Your task to perform on an android device: install app "WhatsApp Messenger" Image 0: 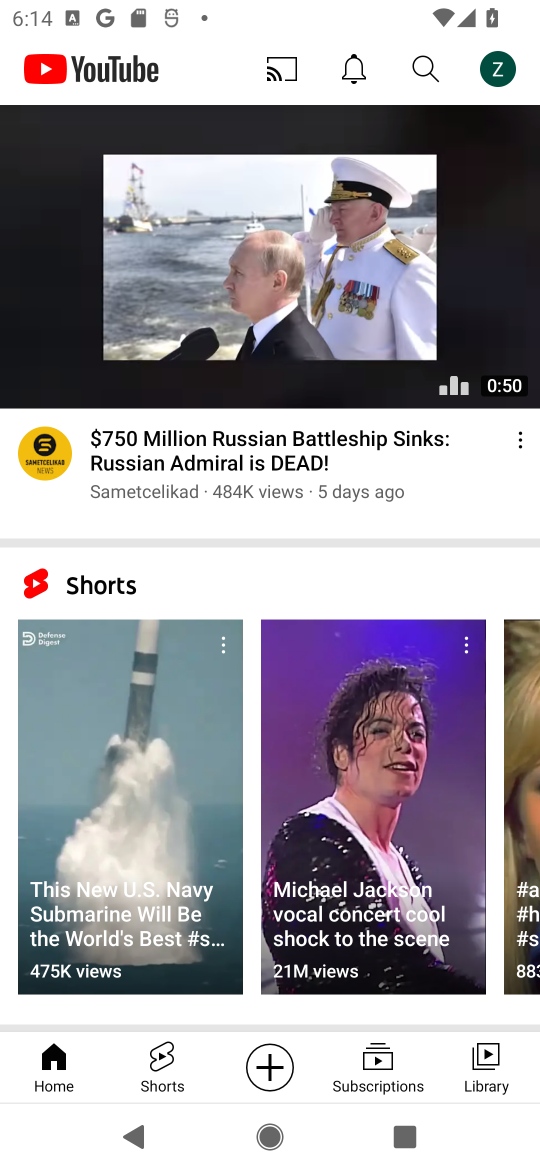
Step 0: press home button
Your task to perform on an android device: install app "WhatsApp Messenger" Image 1: 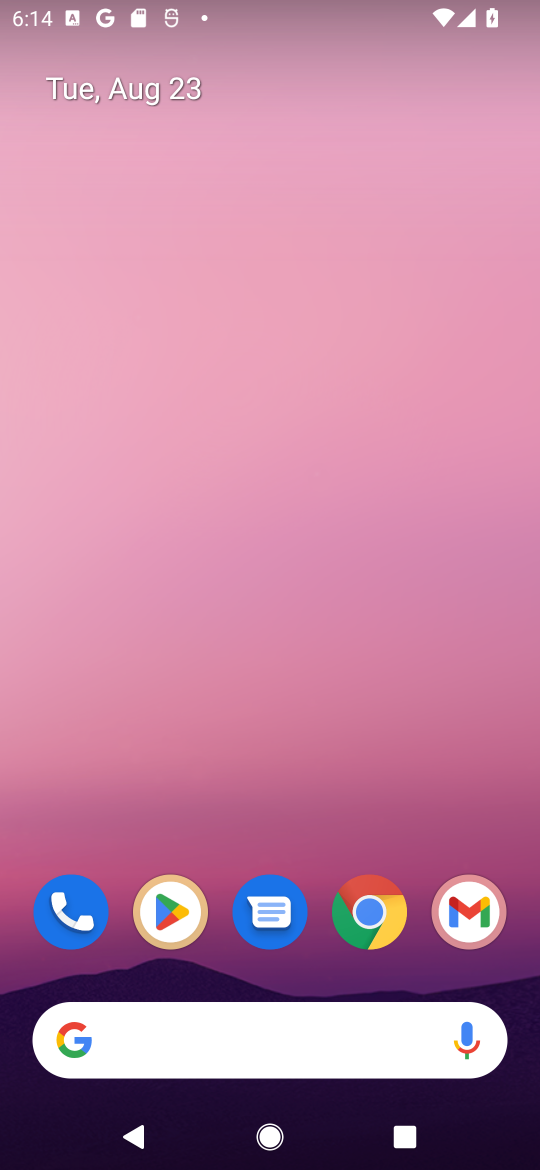
Step 1: drag from (300, 900) to (410, 322)
Your task to perform on an android device: install app "WhatsApp Messenger" Image 2: 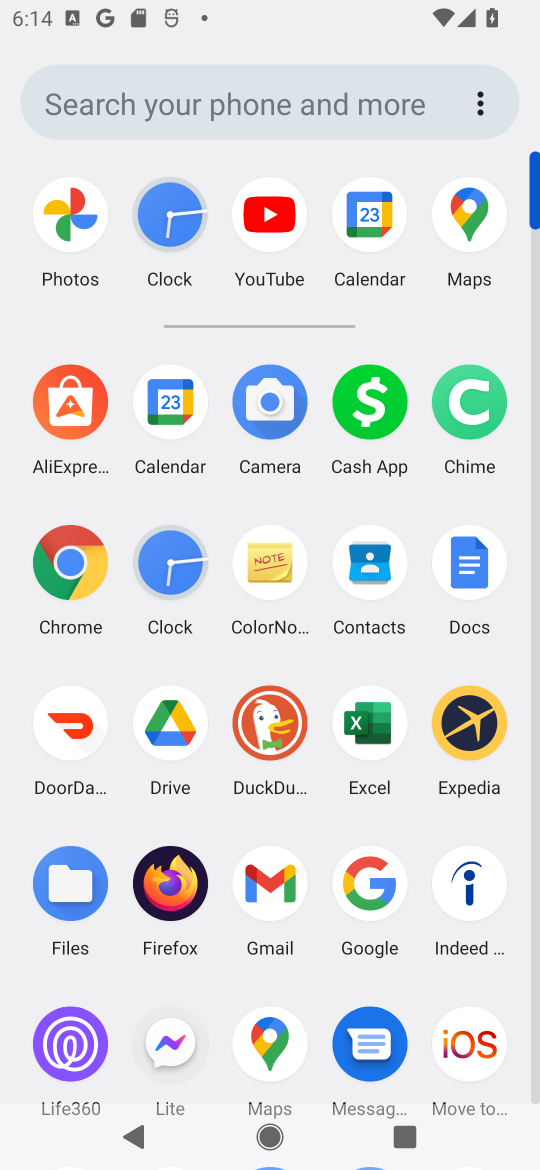
Step 2: drag from (222, 932) to (343, 72)
Your task to perform on an android device: install app "WhatsApp Messenger" Image 3: 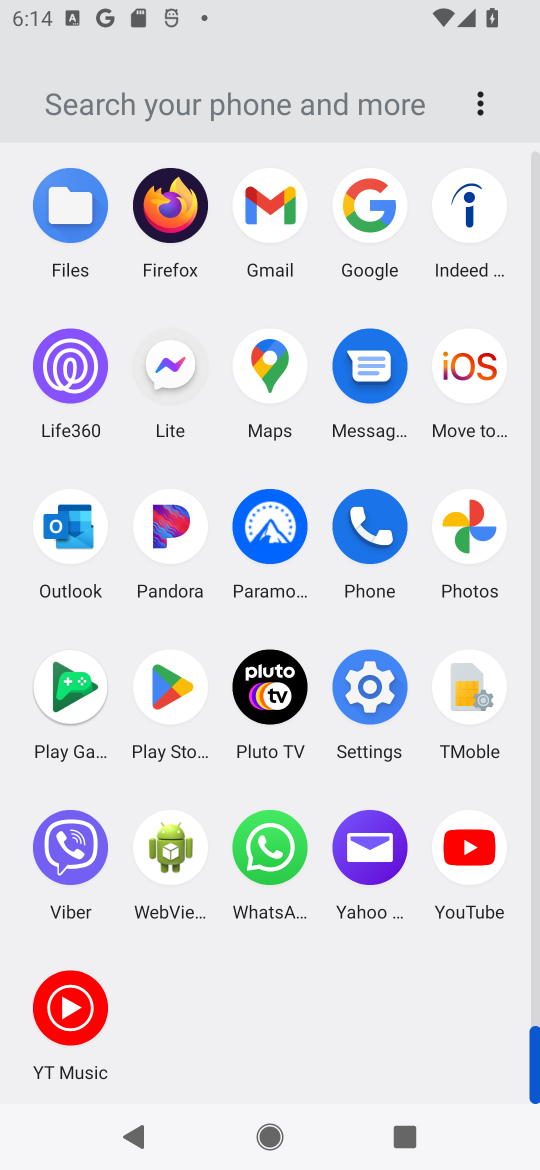
Step 3: click (151, 679)
Your task to perform on an android device: install app "WhatsApp Messenger" Image 4: 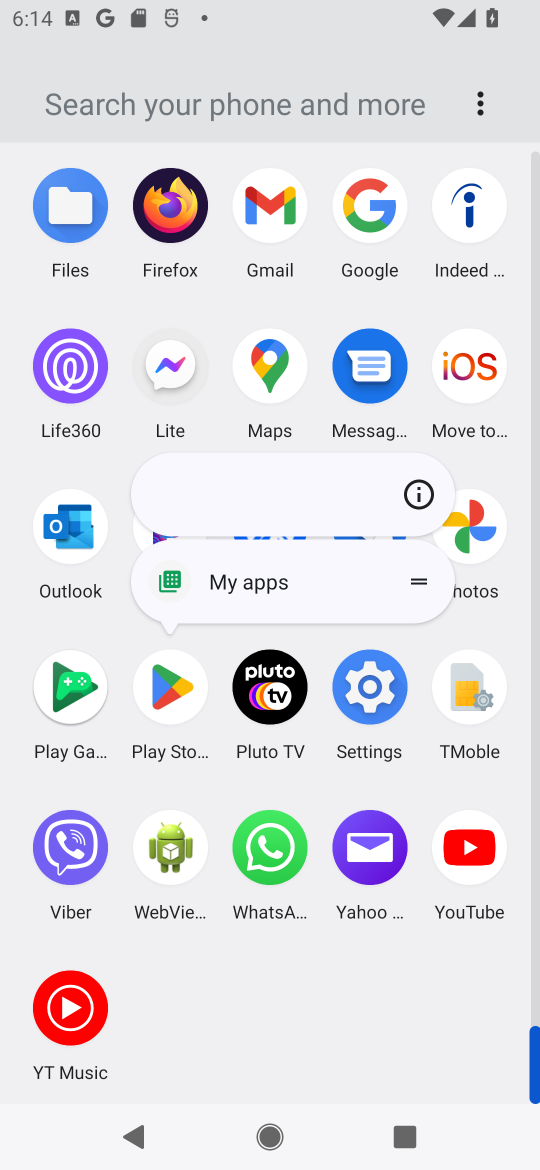
Step 4: click (172, 673)
Your task to perform on an android device: install app "WhatsApp Messenger" Image 5: 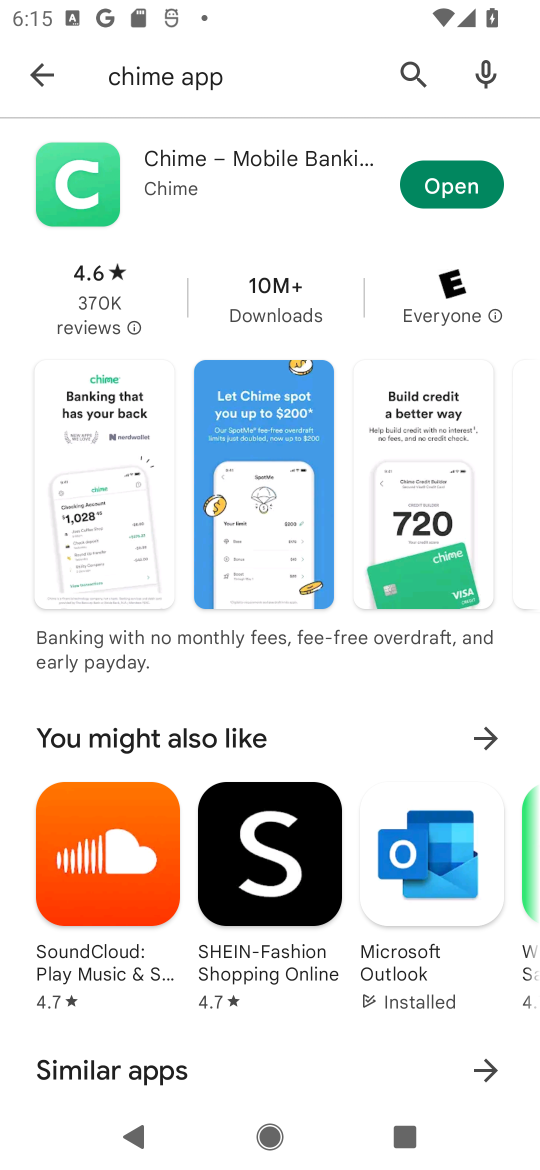
Step 5: click (24, 84)
Your task to perform on an android device: install app "WhatsApp Messenger" Image 6: 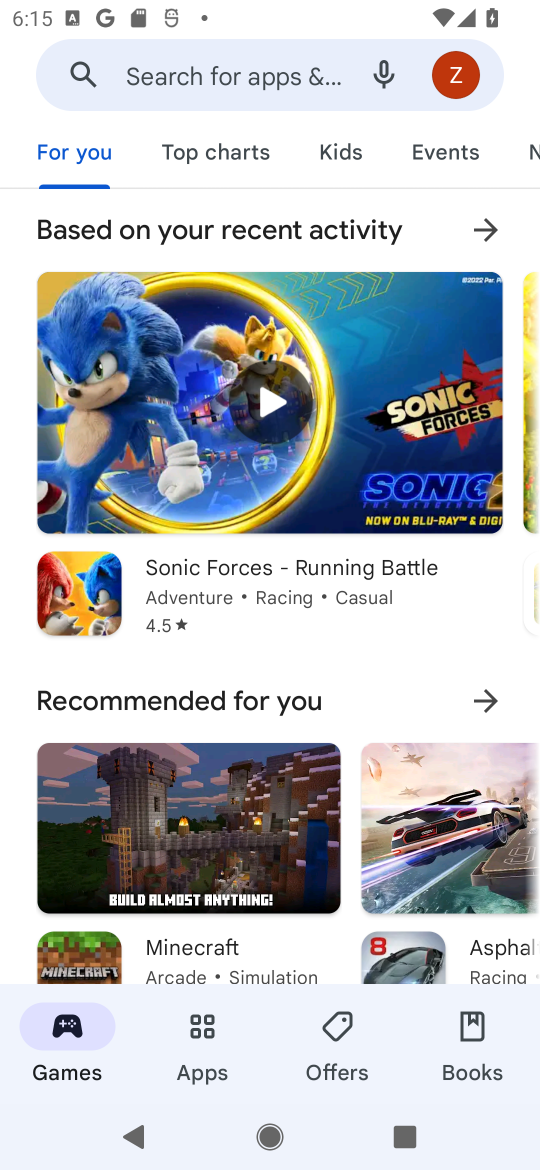
Step 6: click (181, 62)
Your task to perform on an android device: install app "WhatsApp Messenger" Image 7: 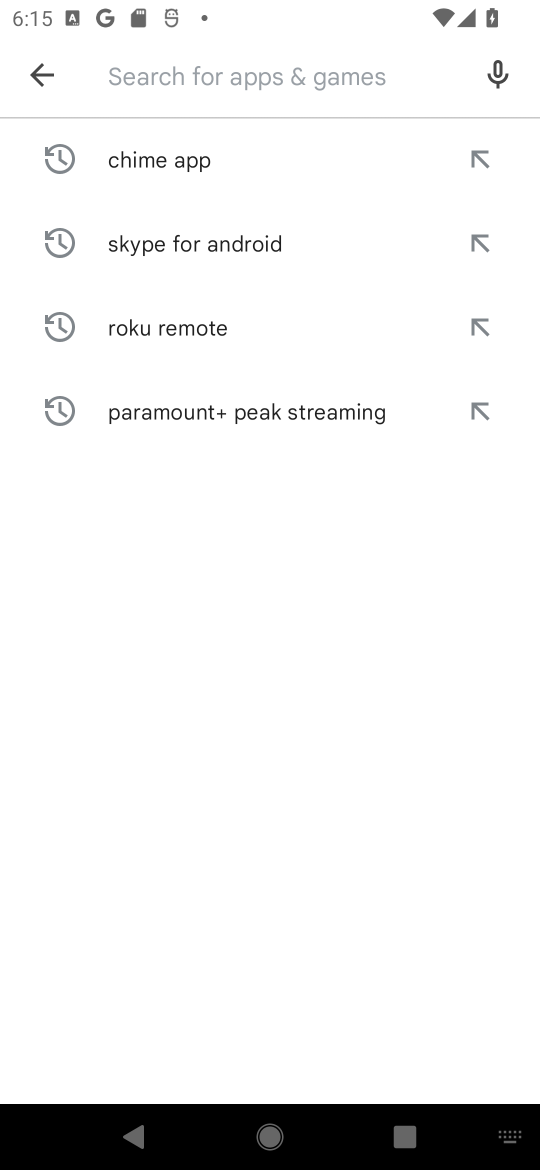
Step 7: type "WhatsApp Messenger "
Your task to perform on an android device: install app "WhatsApp Messenger" Image 8: 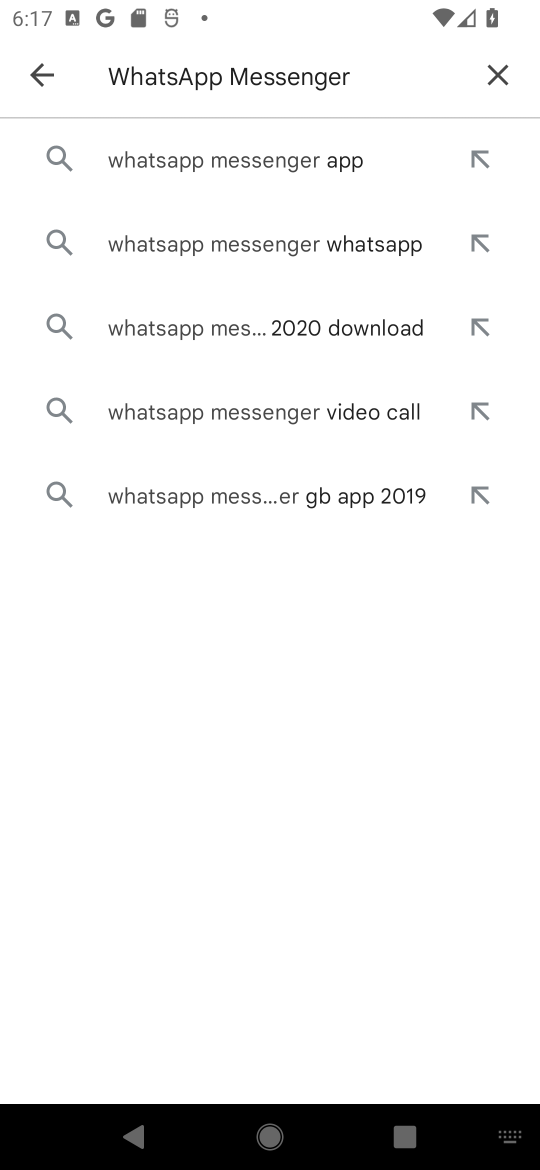
Step 8: click (253, 143)
Your task to perform on an android device: install app "WhatsApp Messenger" Image 9: 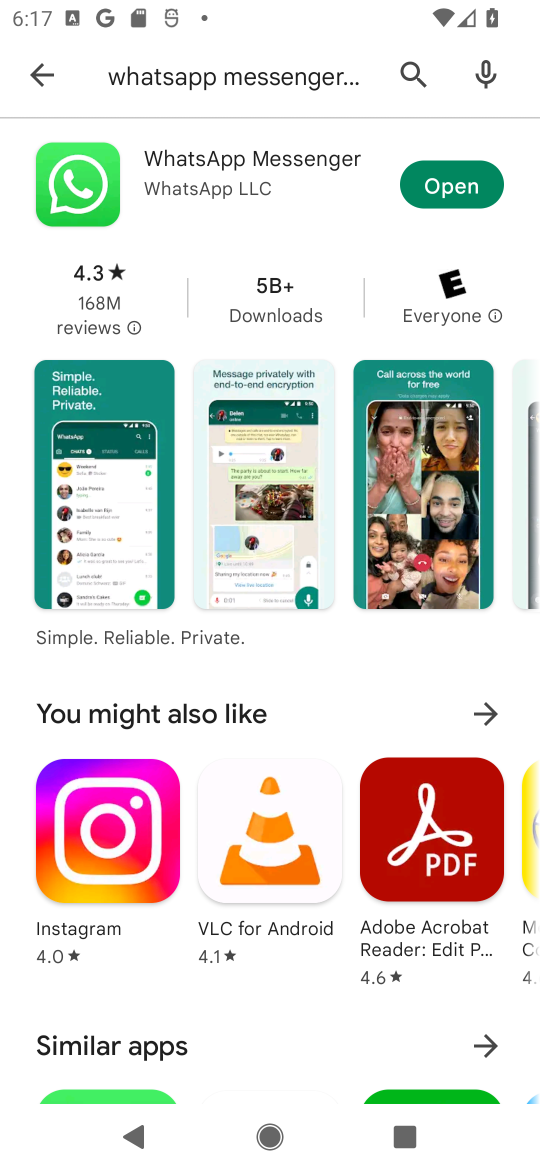
Step 9: click (473, 194)
Your task to perform on an android device: install app "WhatsApp Messenger" Image 10: 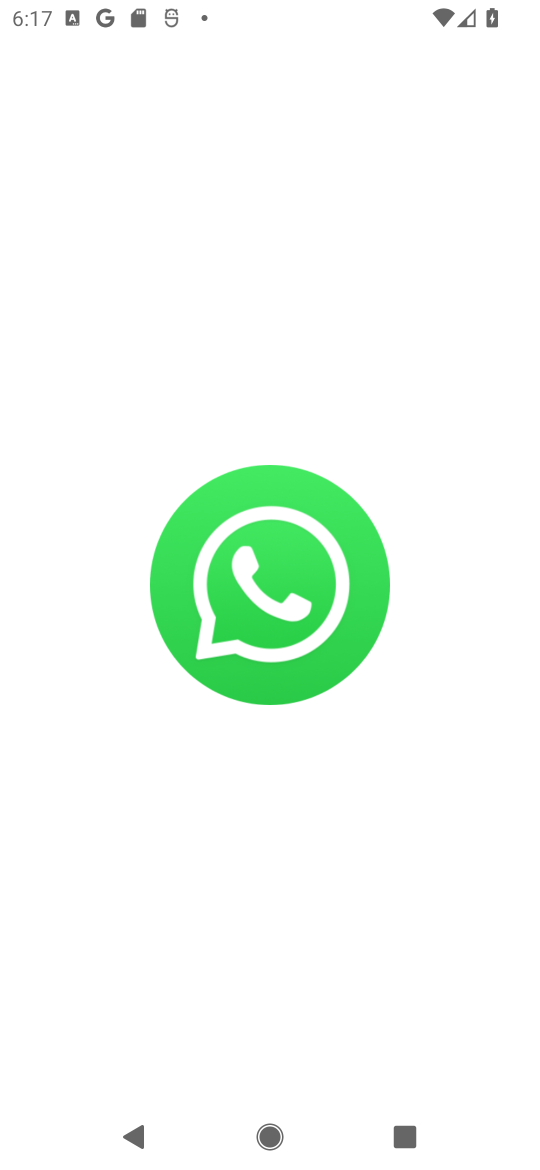
Step 10: task complete